Your task to perform on an android device: Open the calendar and show me this week's events Image 0: 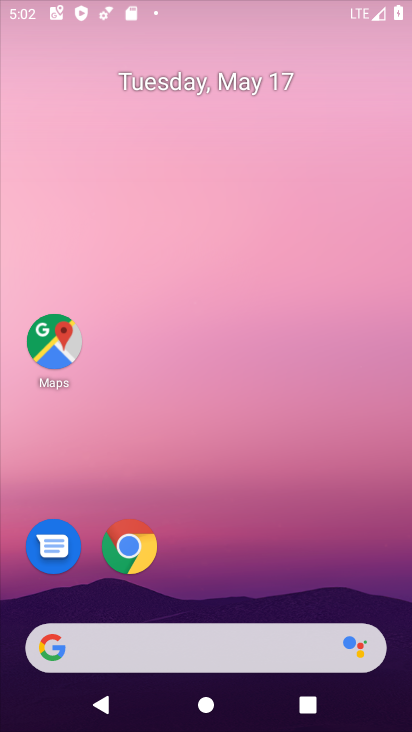
Step 0: drag from (229, 522) to (290, 104)
Your task to perform on an android device: Open the calendar and show me this week's events Image 1: 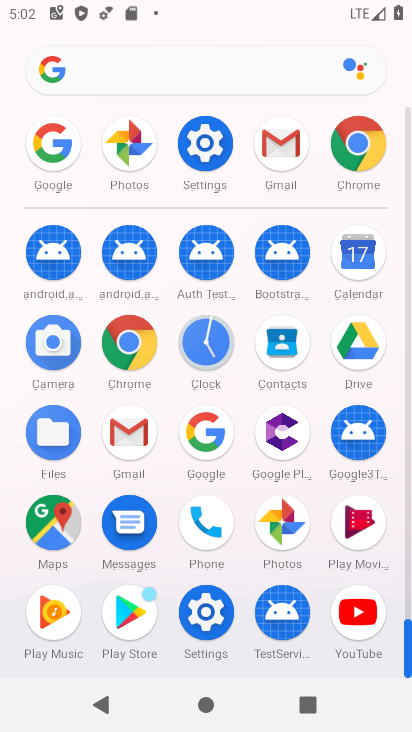
Step 1: click (372, 272)
Your task to perform on an android device: Open the calendar and show me this week's events Image 2: 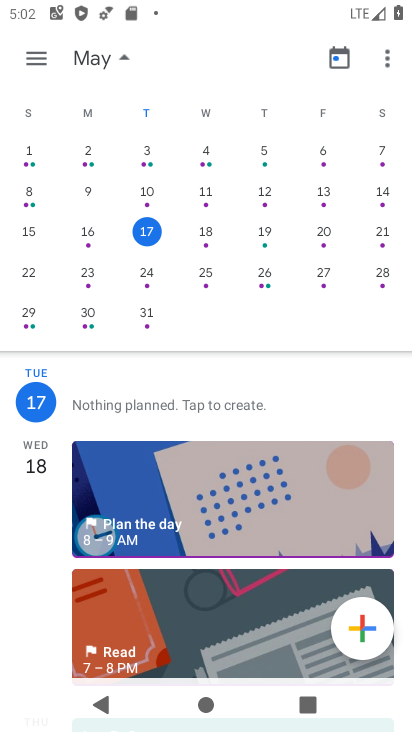
Step 2: click (35, 64)
Your task to perform on an android device: Open the calendar and show me this week's events Image 3: 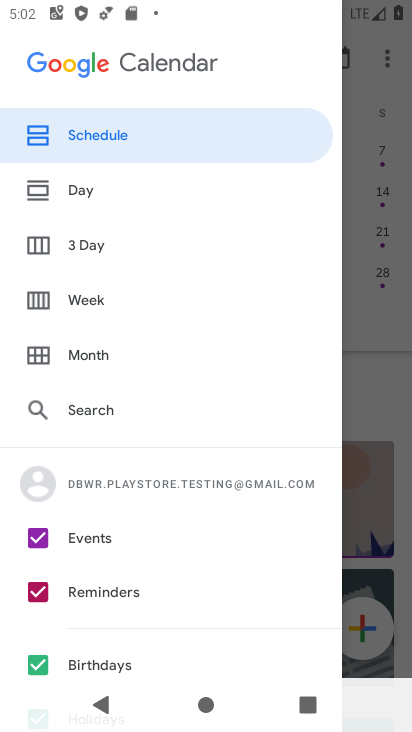
Step 3: click (89, 309)
Your task to perform on an android device: Open the calendar and show me this week's events Image 4: 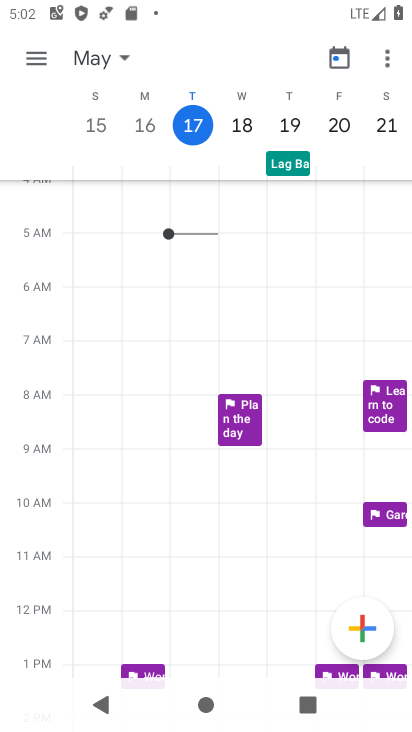
Step 4: click (97, 66)
Your task to perform on an android device: Open the calendar and show me this week's events Image 5: 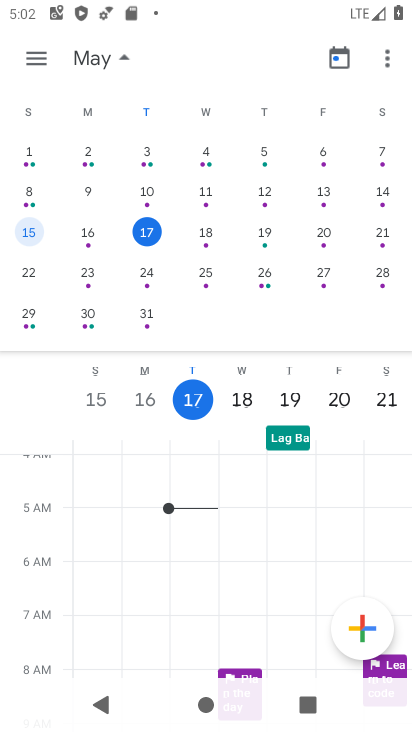
Step 5: click (25, 233)
Your task to perform on an android device: Open the calendar and show me this week's events Image 6: 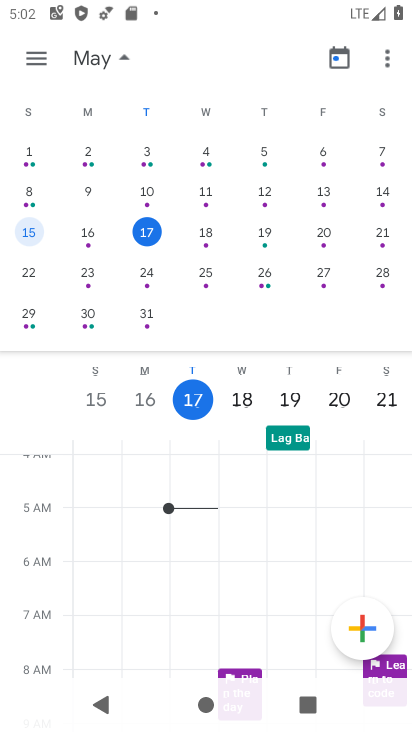
Step 6: task complete